Your task to perform on an android device: What's a good restaurant in San Jose? Image 0: 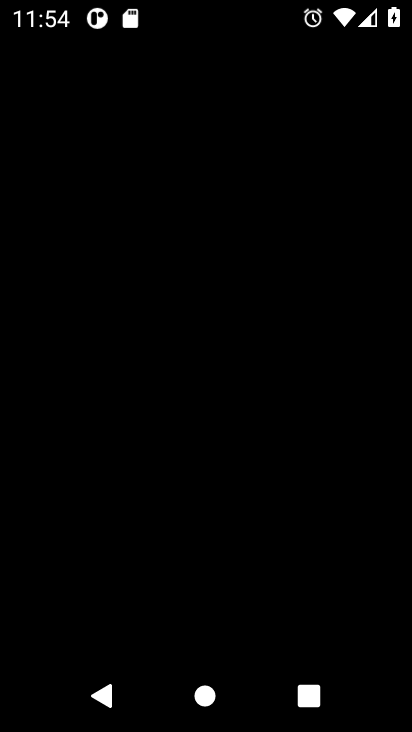
Step 0: press home button
Your task to perform on an android device: What's a good restaurant in San Jose? Image 1: 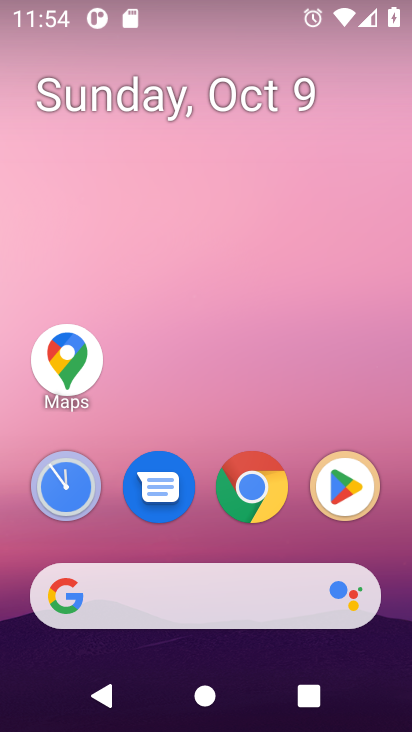
Step 1: drag from (207, 539) to (214, 18)
Your task to perform on an android device: What's a good restaurant in San Jose? Image 2: 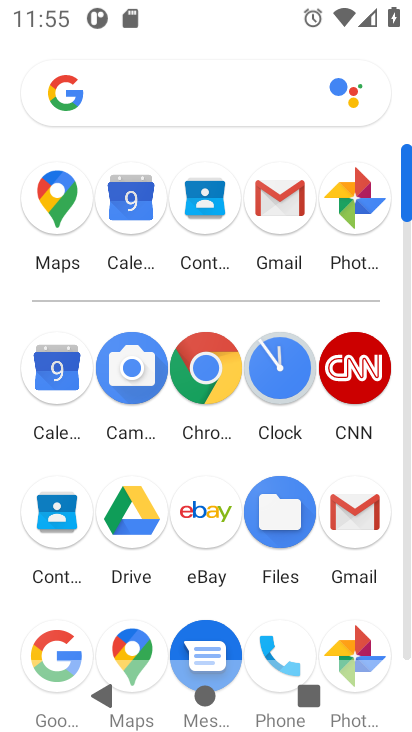
Step 2: click (202, 360)
Your task to perform on an android device: What's a good restaurant in San Jose? Image 3: 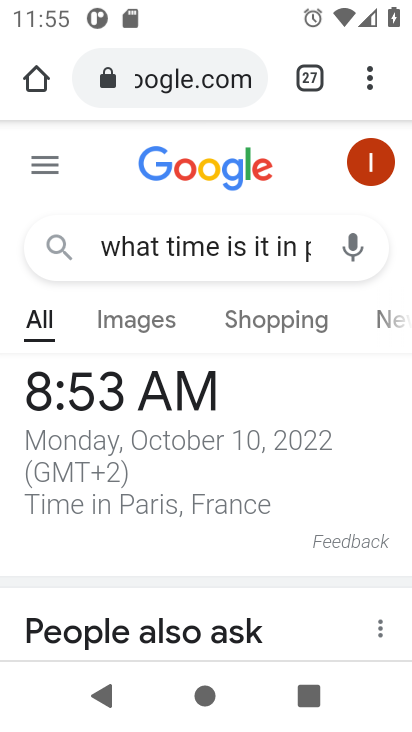
Step 3: click (242, 254)
Your task to perform on an android device: What's a good restaurant in San Jose? Image 4: 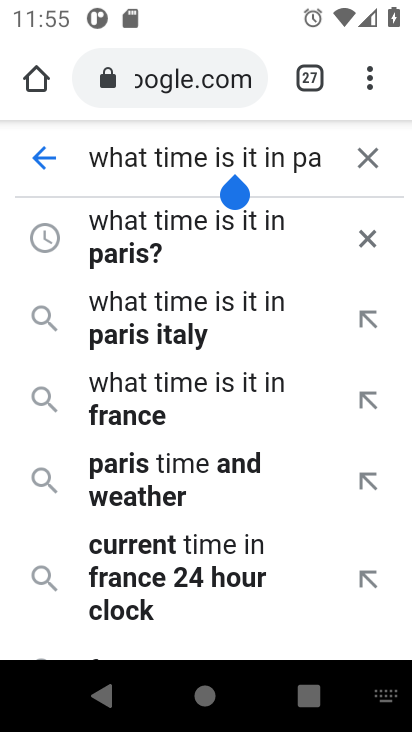
Step 4: click (362, 162)
Your task to perform on an android device: What's a good restaurant in San Jose? Image 5: 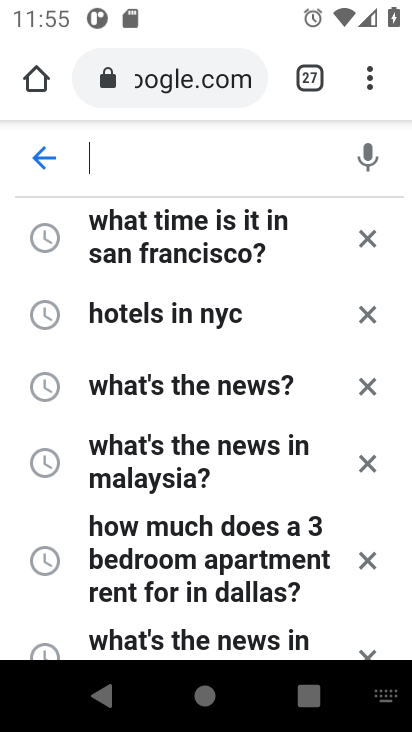
Step 5: type "What's a good restaurant in San Jose?"
Your task to perform on an android device: What's a good restaurant in San Jose? Image 6: 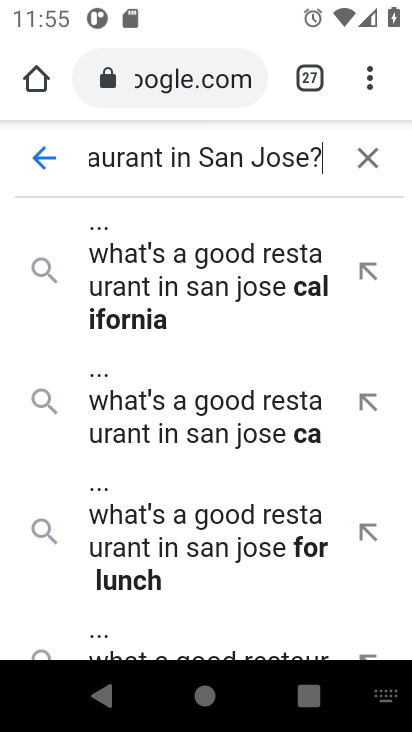
Step 6: type ""
Your task to perform on an android device: What's a good restaurant in San Jose? Image 7: 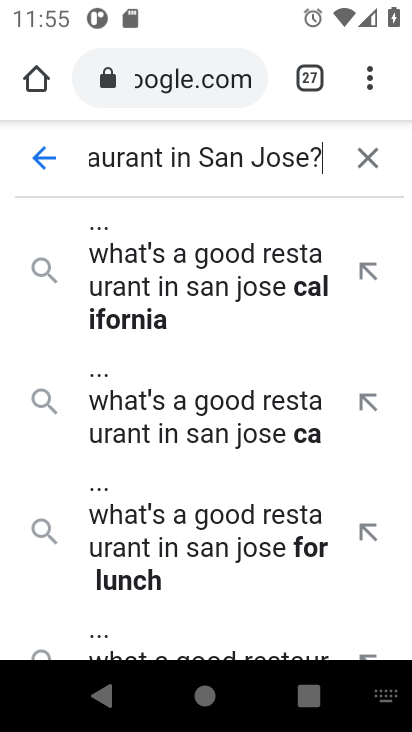
Step 7: click (177, 151)
Your task to perform on an android device: What's a good restaurant in San Jose? Image 8: 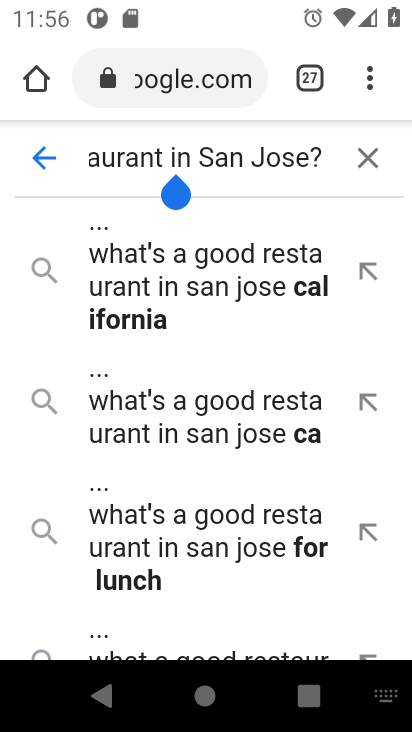
Step 8: drag from (244, 220) to (238, 502)
Your task to perform on an android device: What's a good restaurant in San Jose? Image 9: 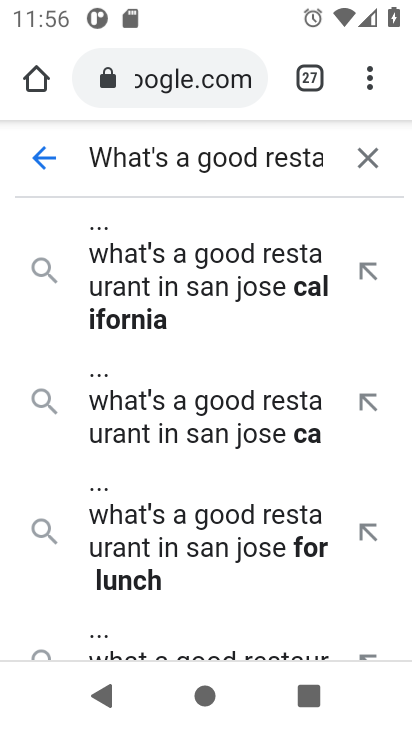
Step 9: drag from (204, 609) to (224, 272)
Your task to perform on an android device: What's a good restaurant in San Jose? Image 10: 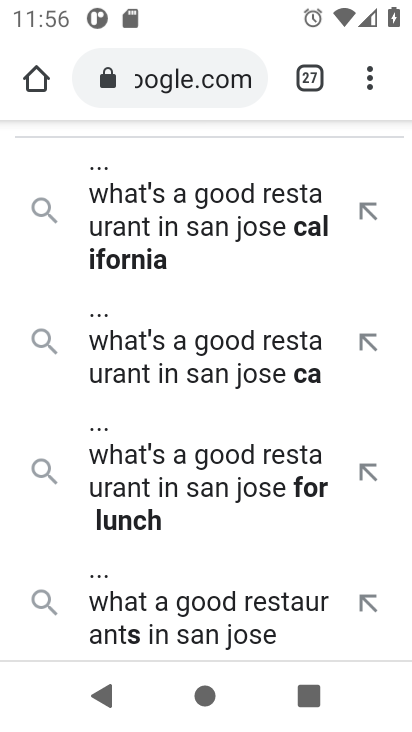
Step 10: click (209, 615)
Your task to perform on an android device: What's a good restaurant in San Jose? Image 11: 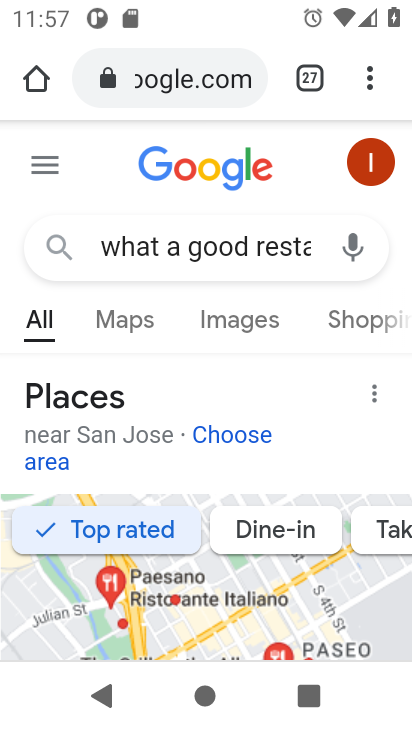
Step 11: task complete